Your task to perform on an android device: Open wifi settings Image 0: 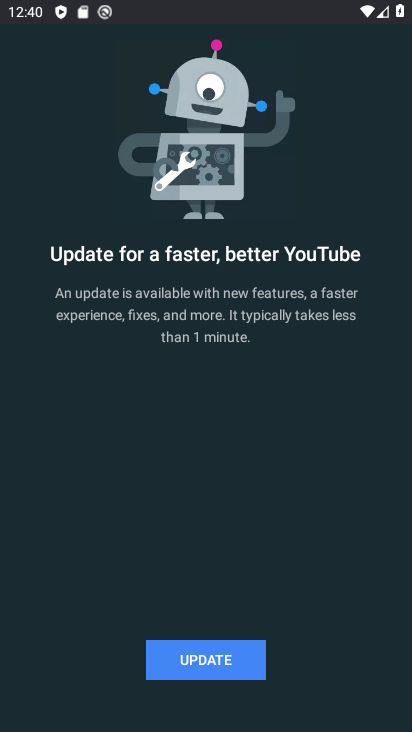
Step 0: press back button
Your task to perform on an android device: Open wifi settings Image 1: 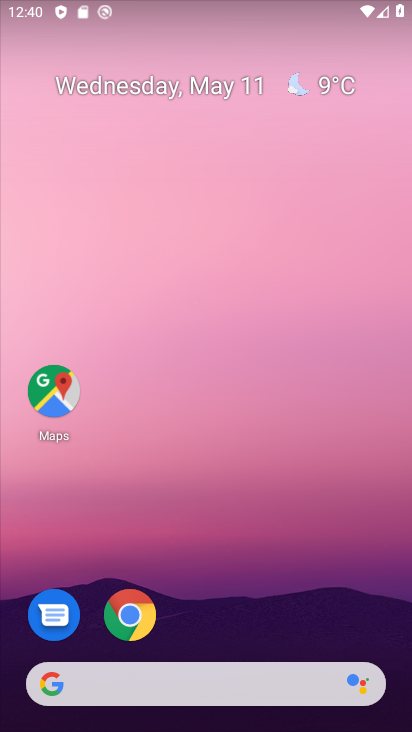
Step 1: drag from (301, 583) to (329, 40)
Your task to perform on an android device: Open wifi settings Image 2: 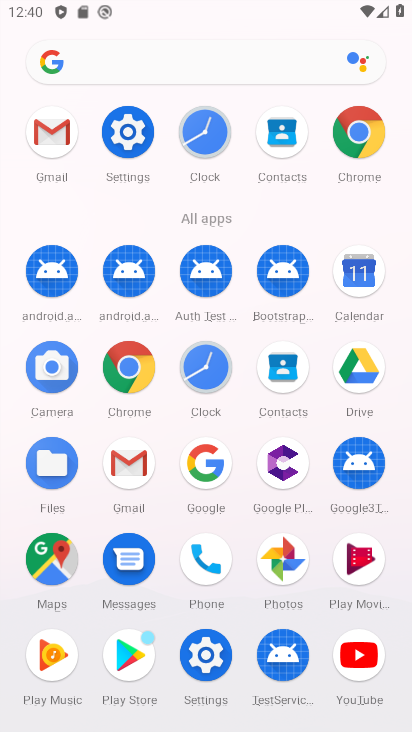
Step 2: click (127, 156)
Your task to perform on an android device: Open wifi settings Image 3: 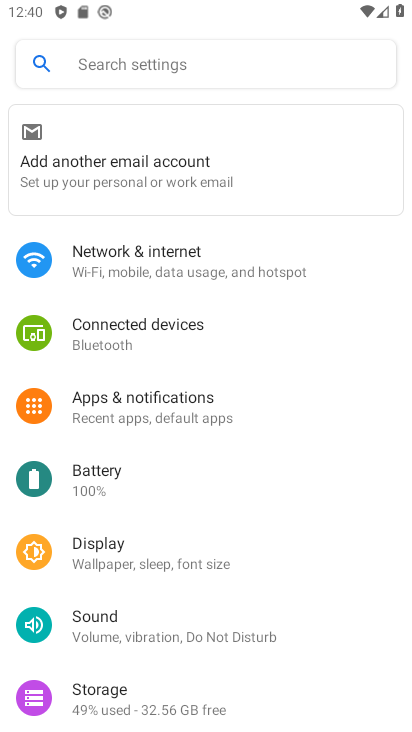
Step 3: click (183, 271)
Your task to perform on an android device: Open wifi settings Image 4: 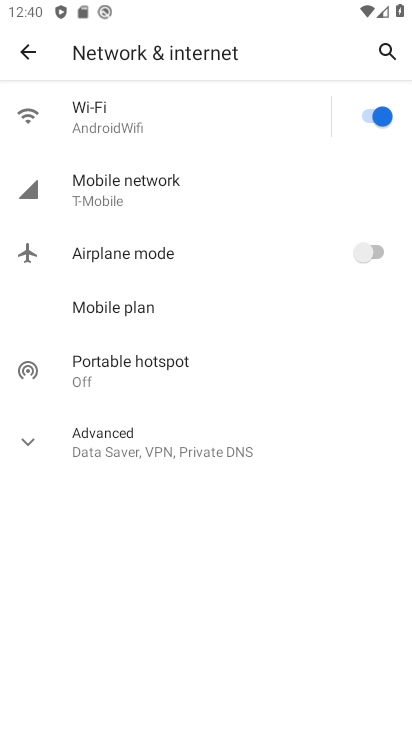
Step 4: click (176, 129)
Your task to perform on an android device: Open wifi settings Image 5: 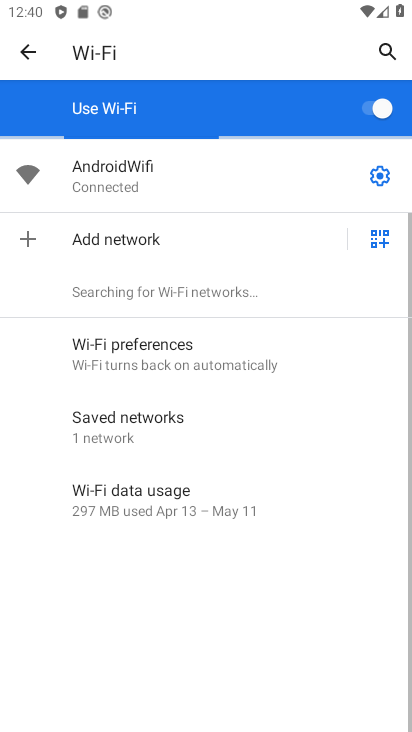
Step 5: task complete